Your task to perform on an android device: Show me popular games on the Play Store Image 0: 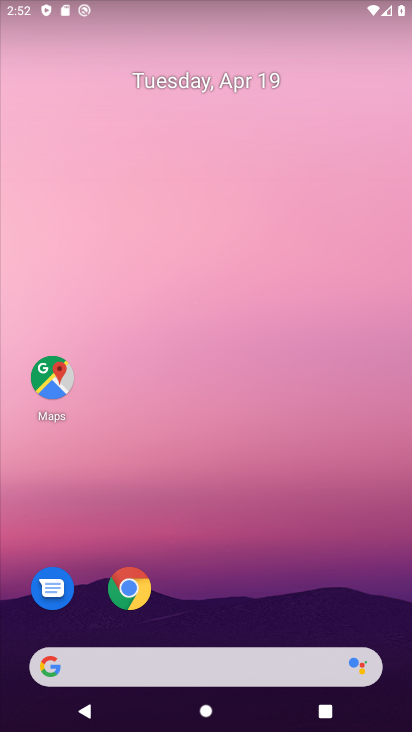
Step 0: drag from (200, 684) to (358, 183)
Your task to perform on an android device: Show me popular games on the Play Store Image 1: 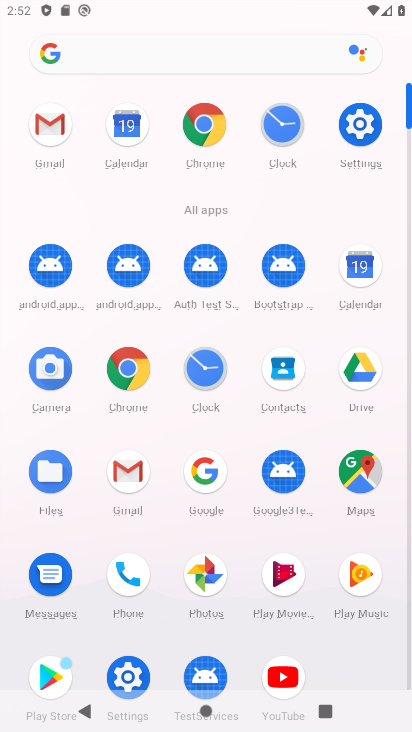
Step 1: click (69, 667)
Your task to perform on an android device: Show me popular games on the Play Store Image 2: 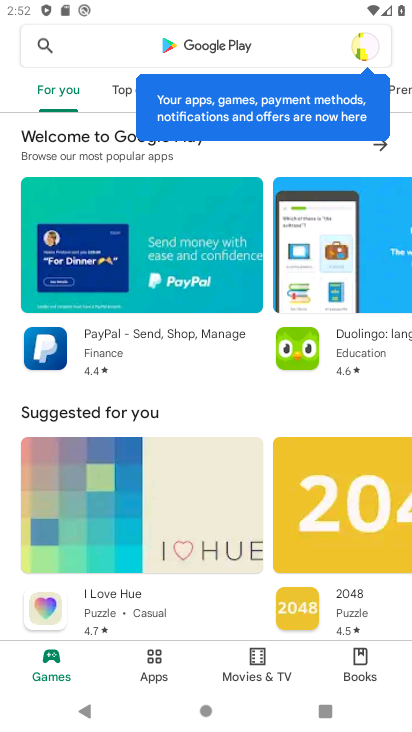
Step 2: click (221, 49)
Your task to perform on an android device: Show me popular games on the Play Store Image 3: 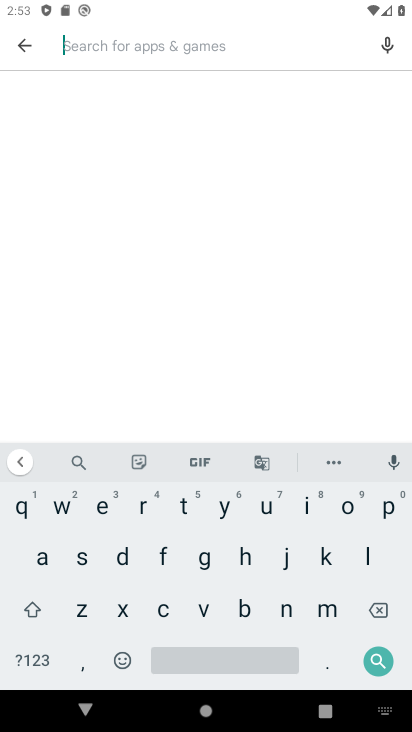
Step 3: click (385, 518)
Your task to perform on an android device: Show me popular games on the Play Store Image 4: 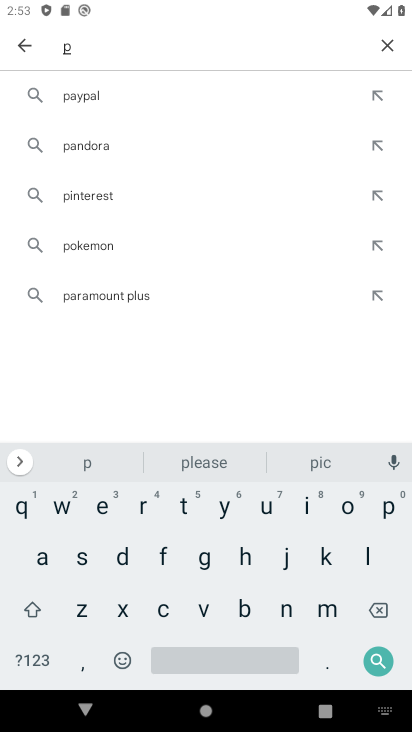
Step 4: click (346, 518)
Your task to perform on an android device: Show me popular games on the Play Store Image 5: 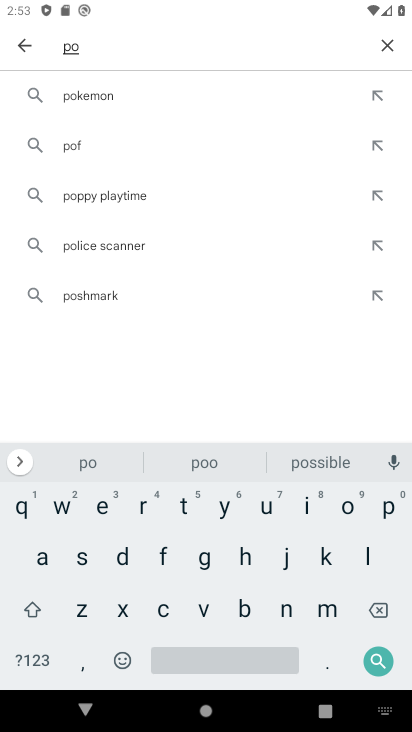
Step 5: click (391, 514)
Your task to perform on an android device: Show me popular games on the Play Store Image 6: 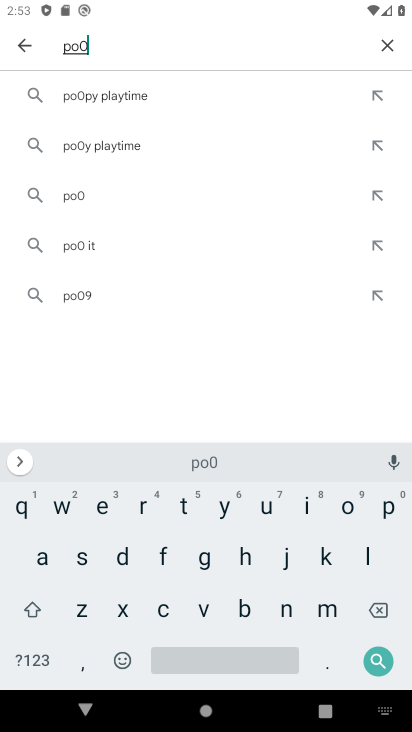
Step 6: click (376, 595)
Your task to perform on an android device: Show me popular games on the Play Store Image 7: 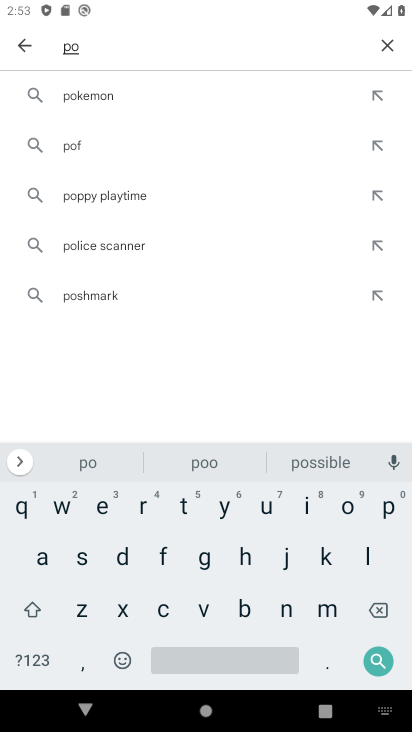
Step 7: click (396, 521)
Your task to perform on an android device: Show me popular games on the Play Store Image 8: 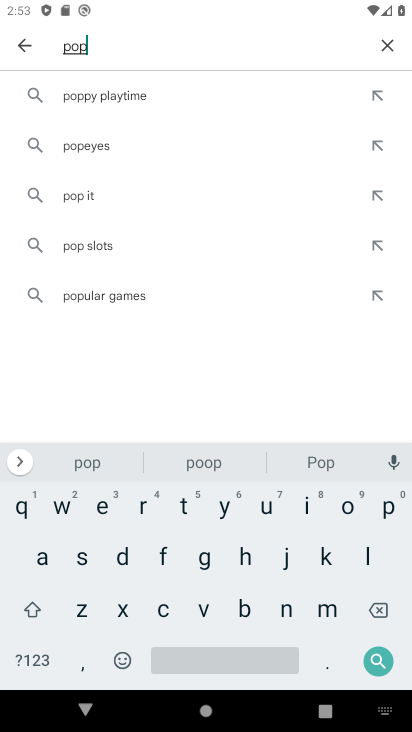
Step 8: click (258, 507)
Your task to perform on an android device: Show me popular games on the Play Store Image 9: 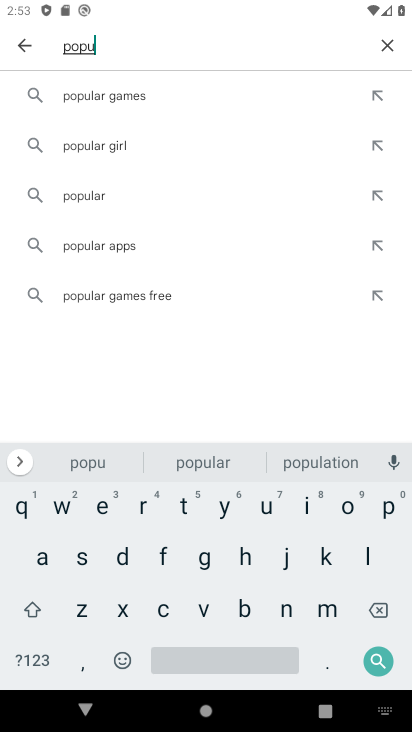
Step 9: click (150, 100)
Your task to perform on an android device: Show me popular games on the Play Store Image 10: 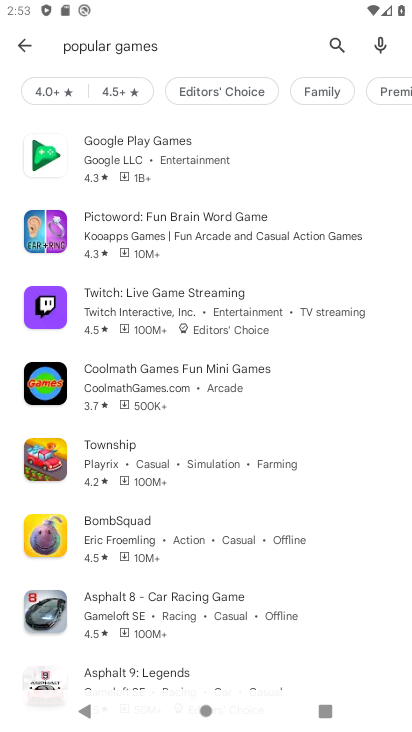
Step 10: task complete